Your task to perform on an android device: Go to settings Image 0: 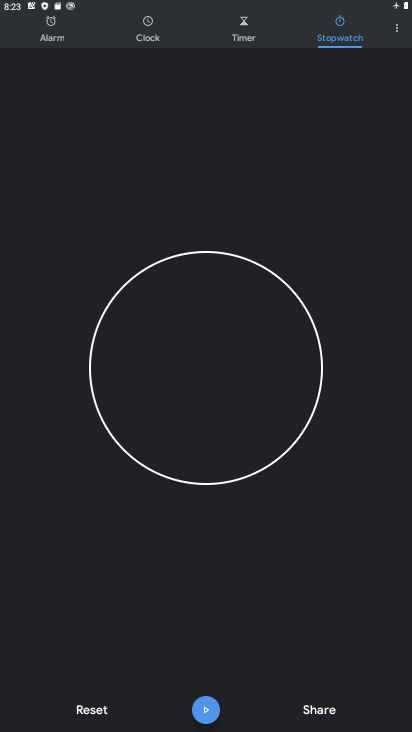
Step 0: press home button
Your task to perform on an android device: Go to settings Image 1: 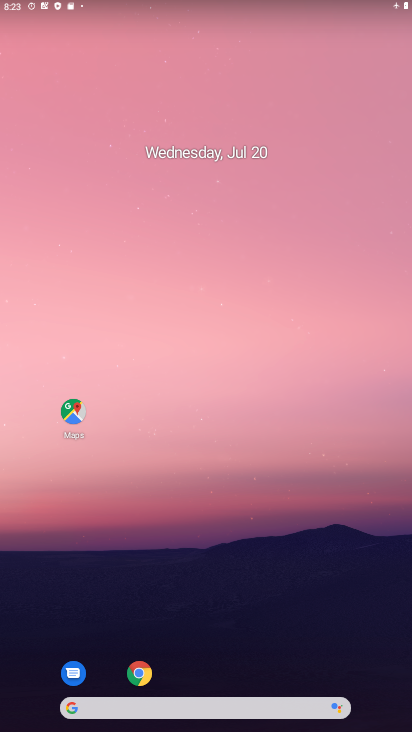
Step 1: drag from (322, 635) to (292, 4)
Your task to perform on an android device: Go to settings Image 2: 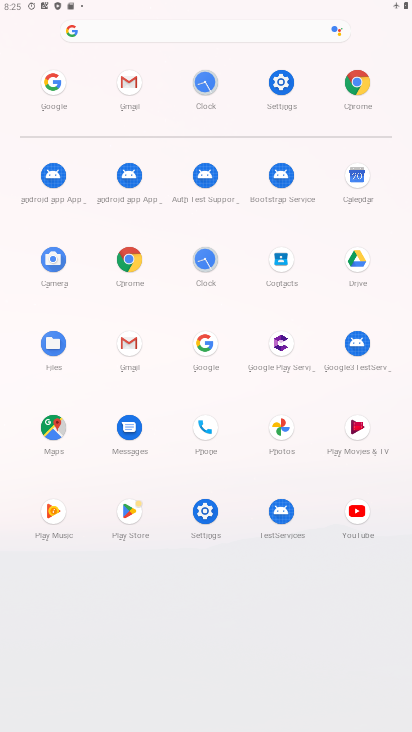
Step 2: click (206, 507)
Your task to perform on an android device: Go to settings Image 3: 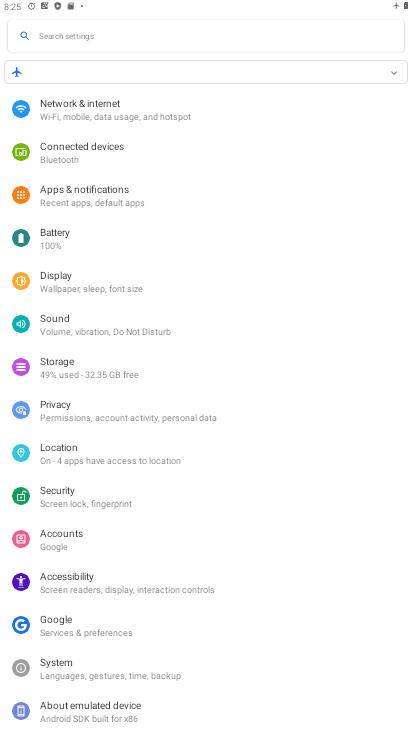
Step 3: task complete